Your task to perform on an android device: refresh tabs in the chrome app Image 0: 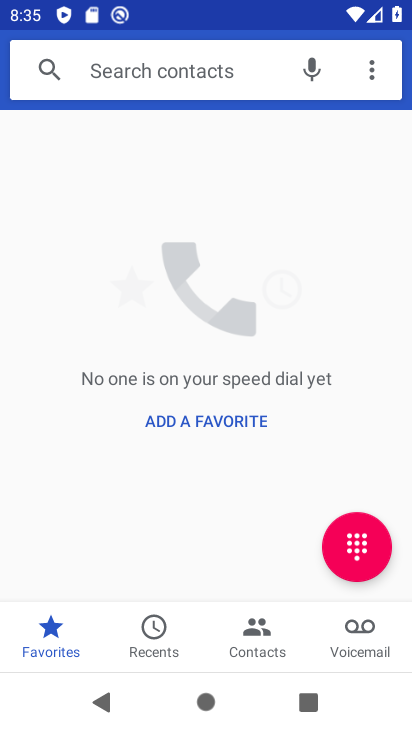
Step 0: press home button
Your task to perform on an android device: refresh tabs in the chrome app Image 1: 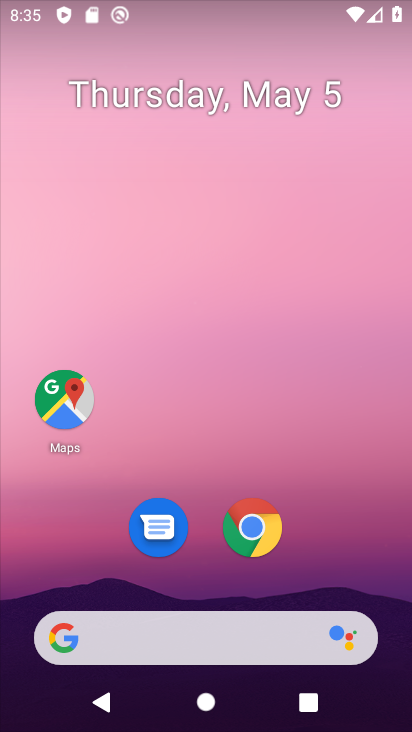
Step 1: drag from (304, 586) to (189, 80)
Your task to perform on an android device: refresh tabs in the chrome app Image 2: 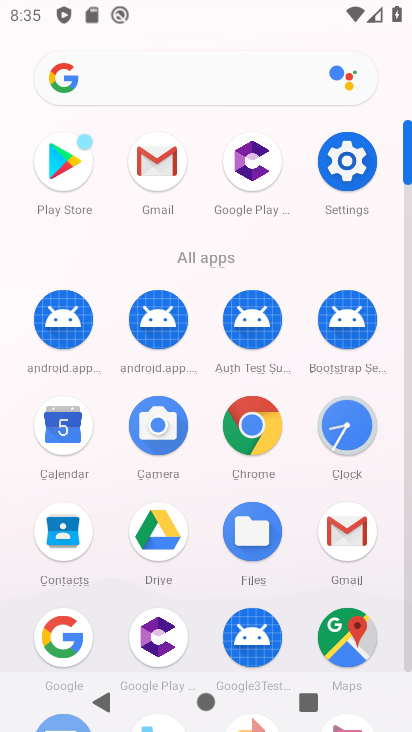
Step 2: click (240, 426)
Your task to perform on an android device: refresh tabs in the chrome app Image 3: 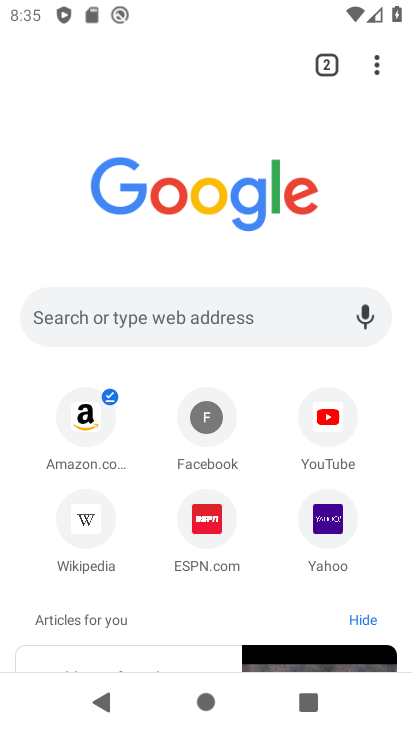
Step 3: click (376, 66)
Your task to perform on an android device: refresh tabs in the chrome app Image 4: 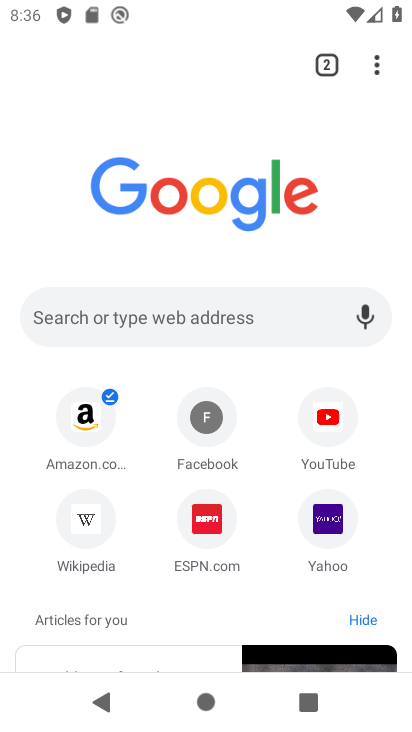
Step 4: click (374, 67)
Your task to perform on an android device: refresh tabs in the chrome app Image 5: 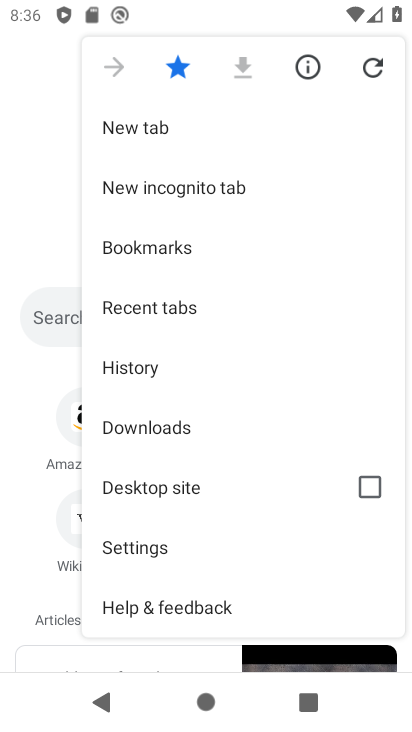
Step 5: click (374, 67)
Your task to perform on an android device: refresh tabs in the chrome app Image 6: 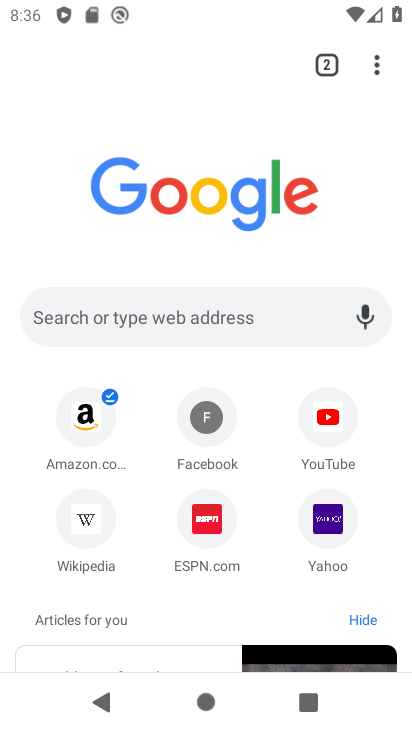
Step 6: task complete